Your task to perform on an android device: turn off sleep mode Image 0: 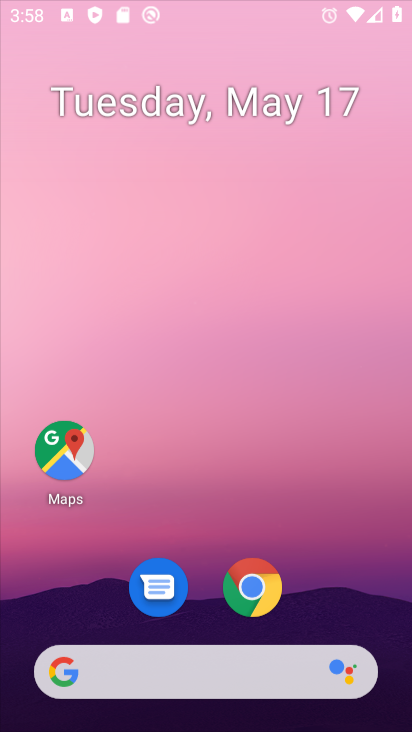
Step 0: click (321, 50)
Your task to perform on an android device: turn off sleep mode Image 1: 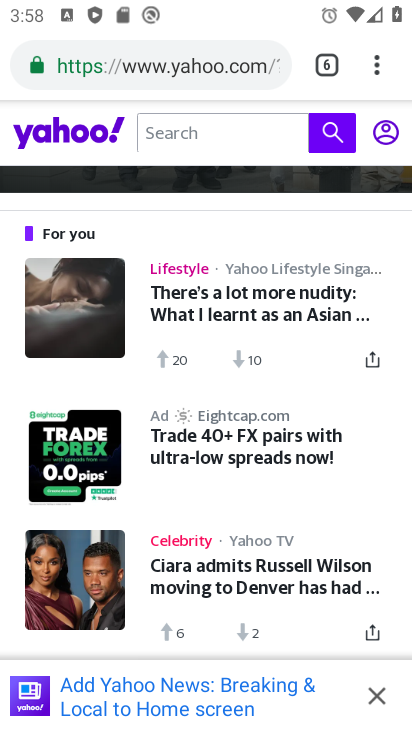
Step 1: press home button
Your task to perform on an android device: turn off sleep mode Image 2: 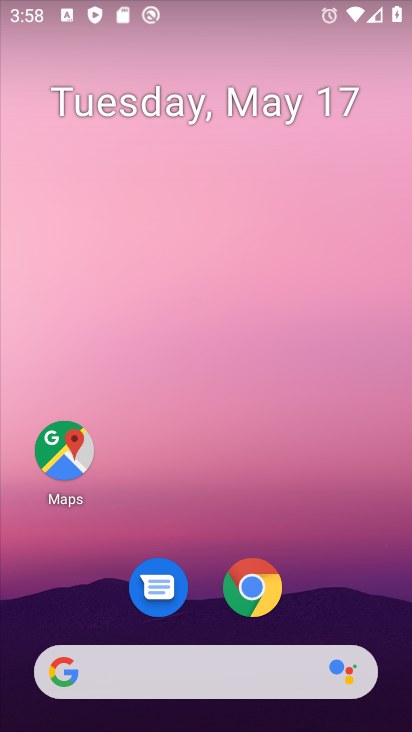
Step 2: drag from (225, 624) to (245, 203)
Your task to perform on an android device: turn off sleep mode Image 3: 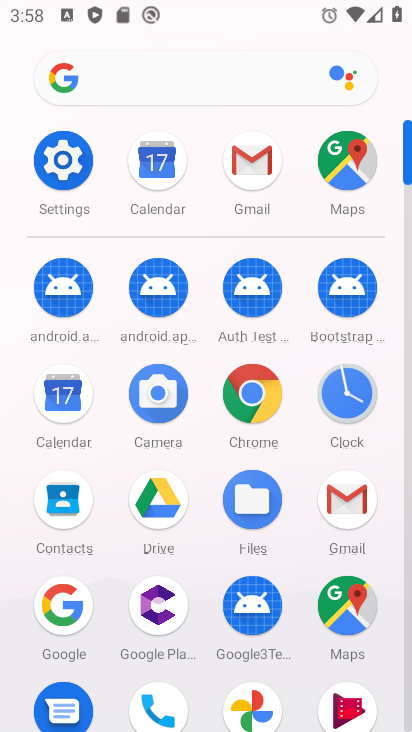
Step 3: click (70, 154)
Your task to perform on an android device: turn off sleep mode Image 4: 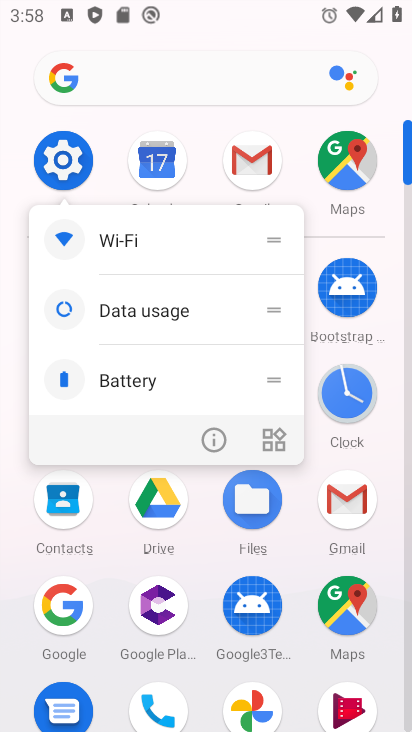
Step 4: click (216, 436)
Your task to perform on an android device: turn off sleep mode Image 5: 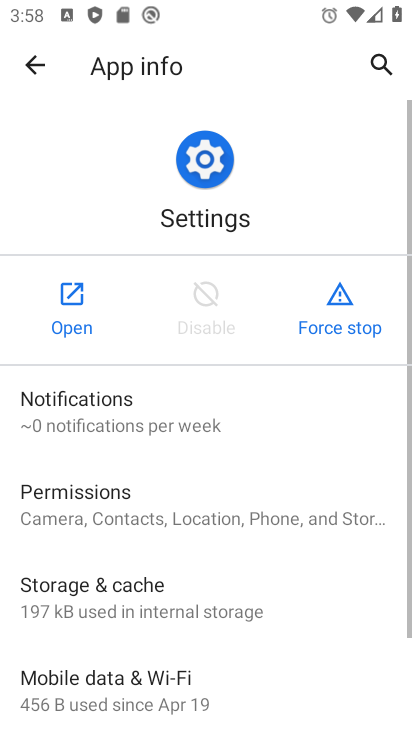
Step 5: click (90, 299)
Your task to perform on an android device: turn off sleep mode Image 6: 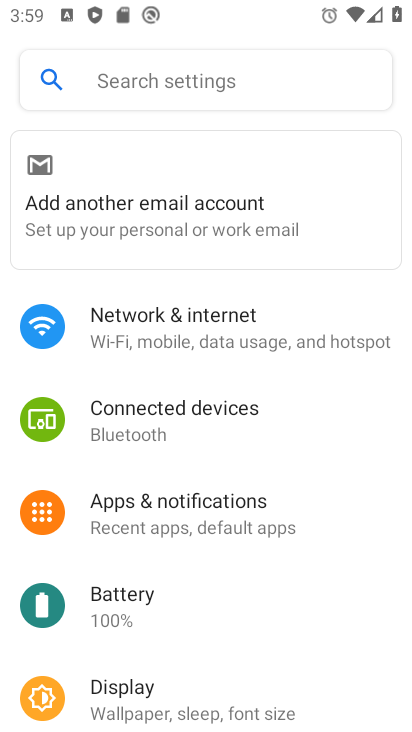
Step 6: drag from (170, 616) to (279, 126)
Your task to perform on an android device: turn off sleep mode Image 7: 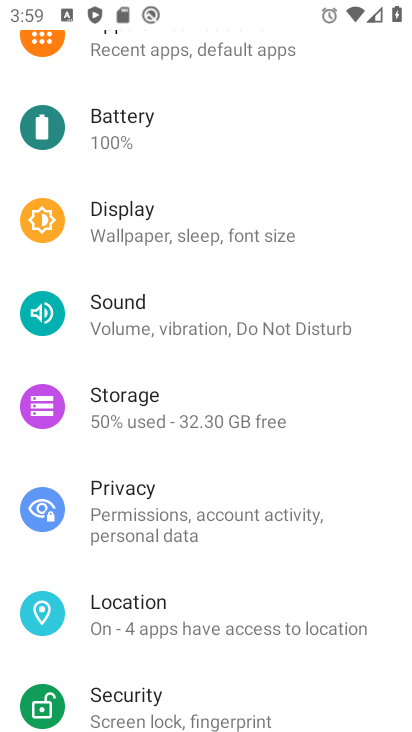
Step 7: click (178, 212)
Your task to perform on an android device: turn off sleep mode Image 8: 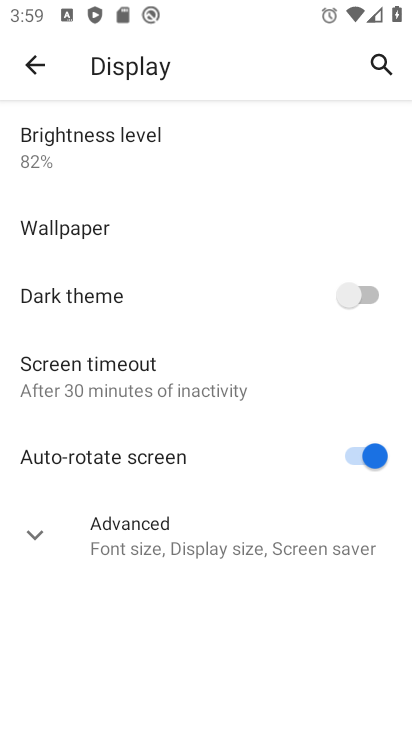
Step 8: click (175, 517)
Your task to perform on an android device: turn off sleep mode Image 9: 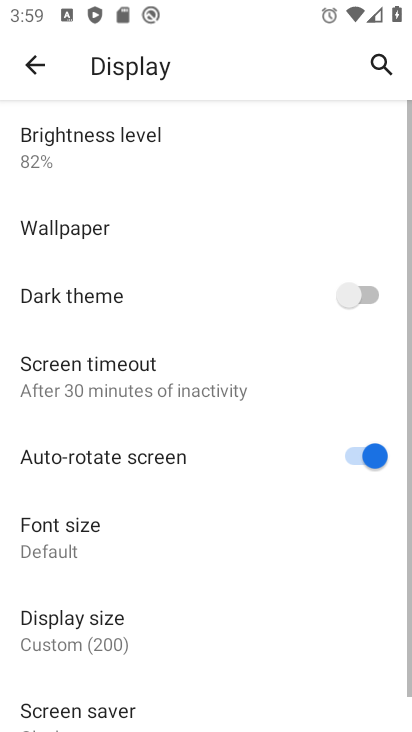
Step 9: click (183, 369)
Your task to perform on an android device: turn off sleep mode Image 10: 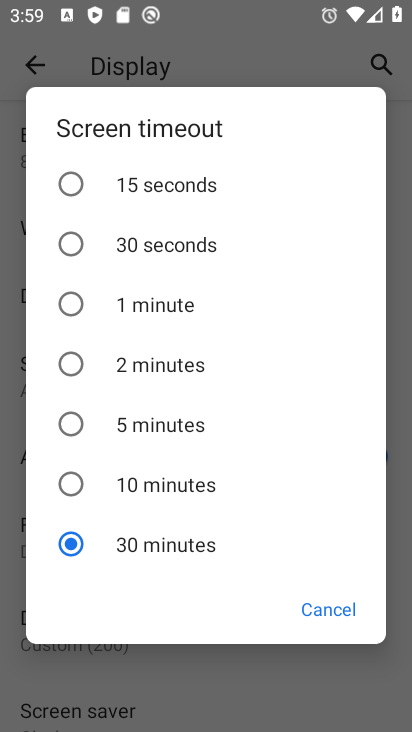
Step 10: task complete